Your task to perform on an android device: clear all cookies in the chrome app Image 0: 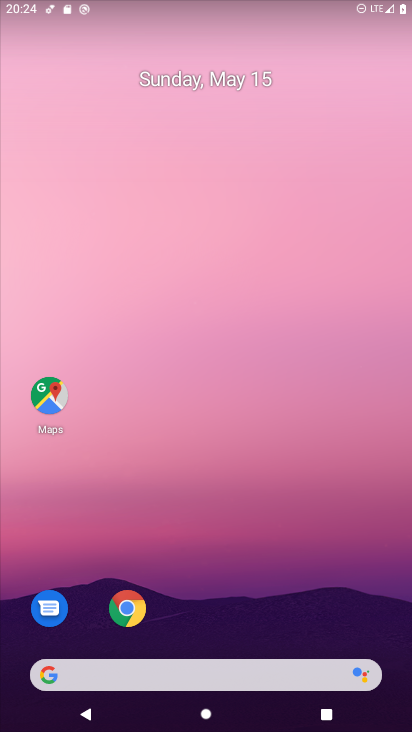
Step 0: click (116, 615)
Your task to perform on an android device: clear all cookies in the chrome app Image 1: 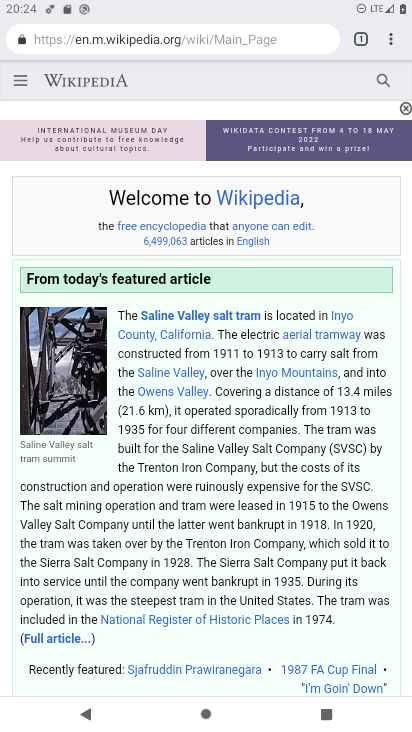
Step 1: click (380, 40)
Your task to perform on an android device: clear all cookies in the chrome app Image 2: 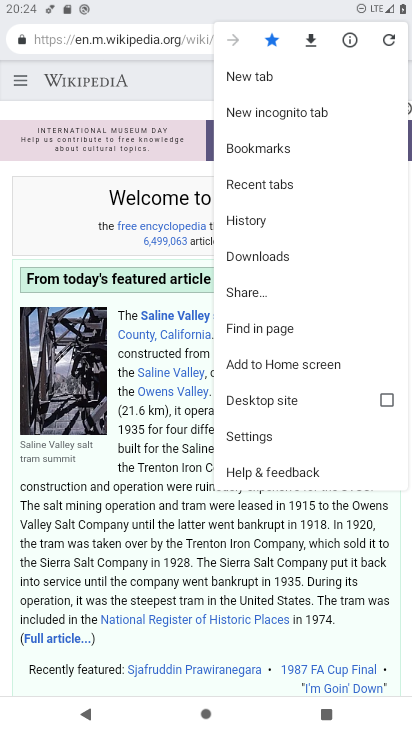
Step 2: click (286, 427)
Your task to perform on an android device: clear all cookies in the chrome app Image 3: 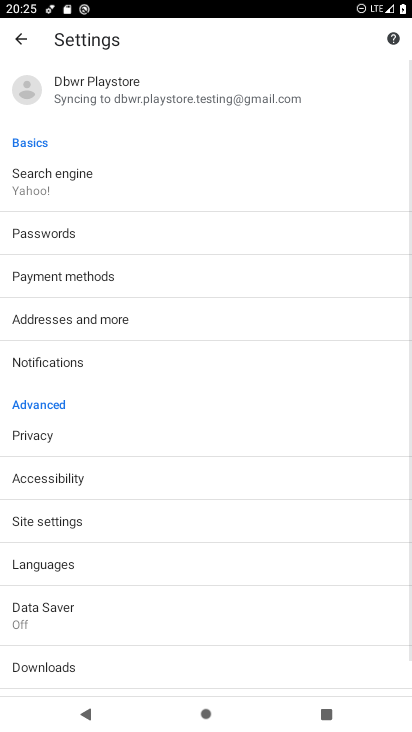
Step 3: click (51, 431)
Your task to perform on an android device: clear all cookies in the chrome app Image 4: 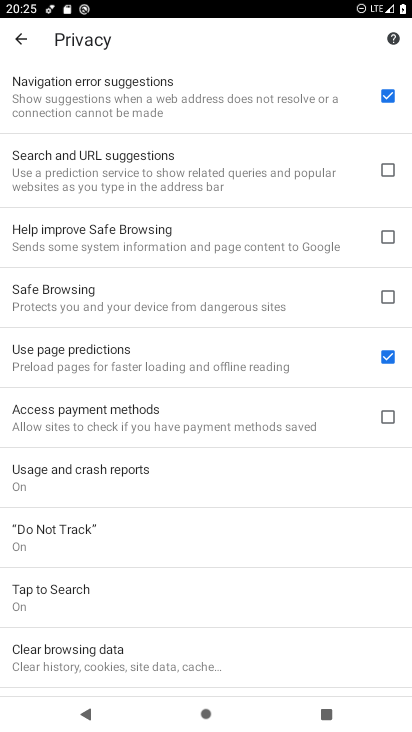
Step 4: drag from (263, 556) to (244, 303)
Your task to perform on an android device: clear all cookies in the chrome app Image 5: 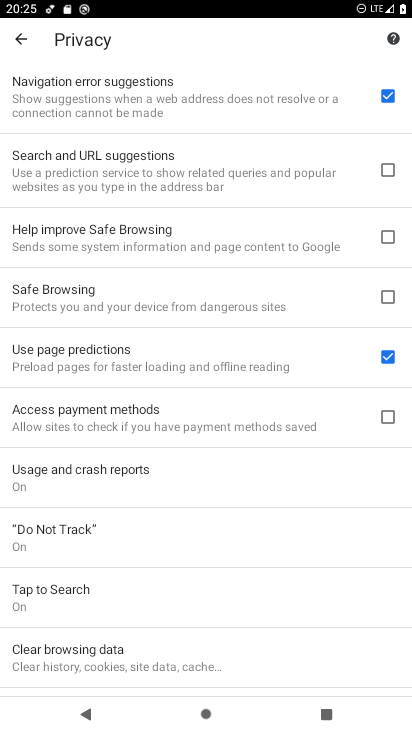
Step 5: click (117, 648)
Your task to perform on an android device: clear all cookies in the chrome app Image 6: 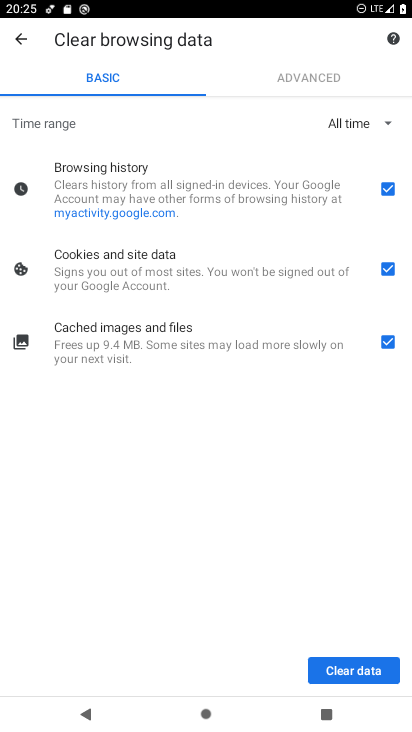
Step 6: click (384, 188)
Your task to perform on an android device: clear all cookies in the chrome app Image 7: 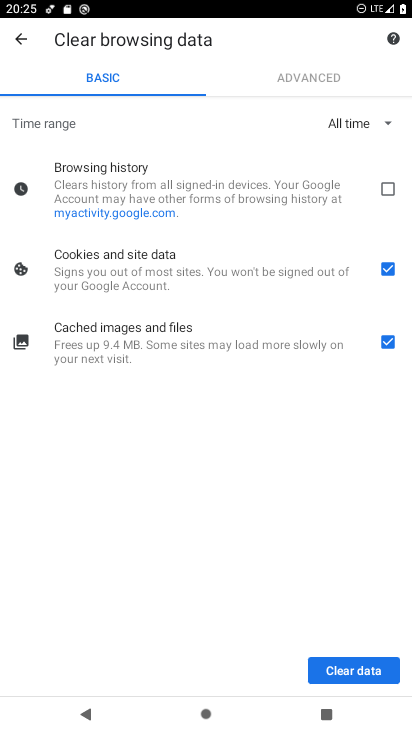
Step 7: click (391, 345)
Your task to perform on an android device: clear all cookies in the chrome app Image 8: 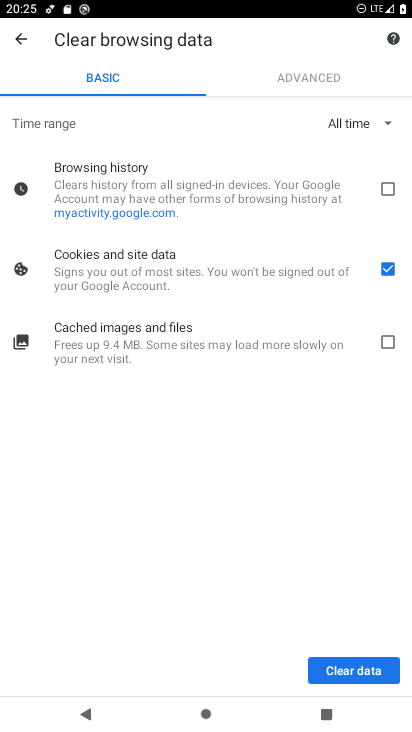
Step 8: click (334, 673)
Your task to perform on an android device: clear all cookies in the chrome app Image 9: 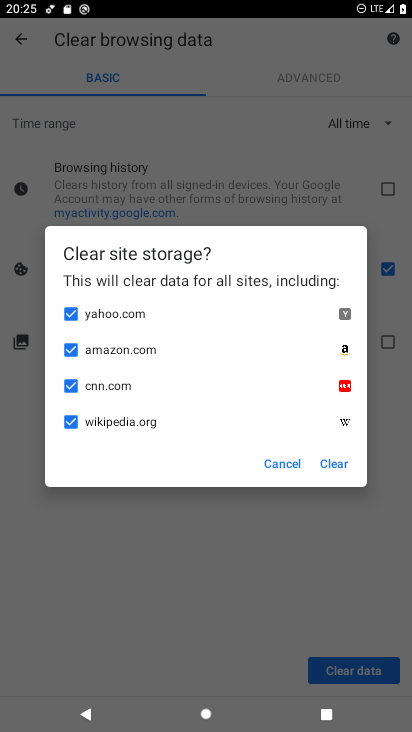
Step 9: click (322, 465)
Your task to perform on an android device: clear all cookies in the chrome app Image 10: 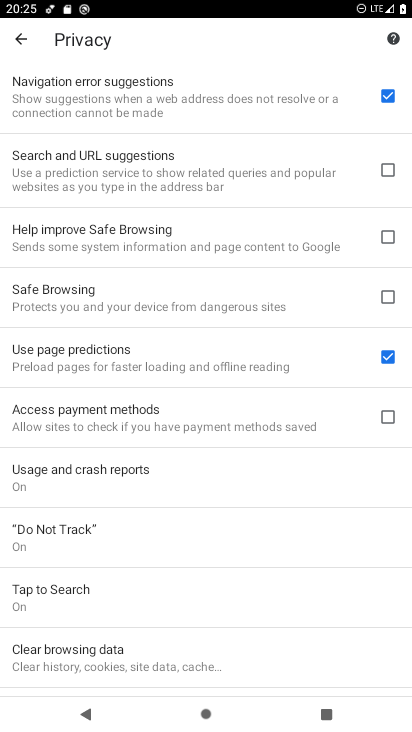
Step 10: task complete